Your task to perform on an android device: make emails show in primary in the gmail app Image 0: 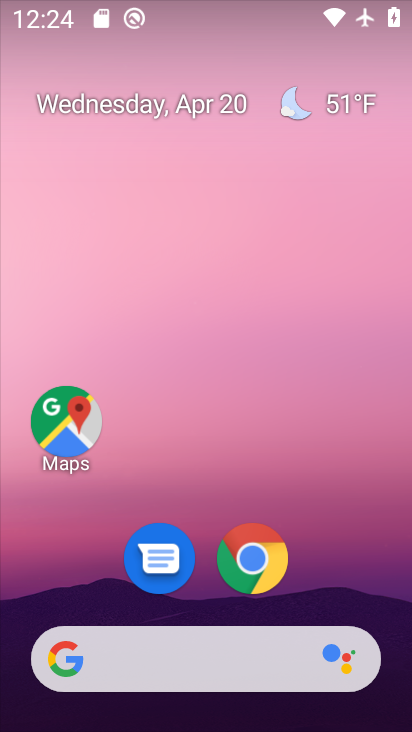
Step 0: drag from (379, 611) to (280, 224)
Your task to perform on an android device: make emails show in primary in the gmail app Image 1: 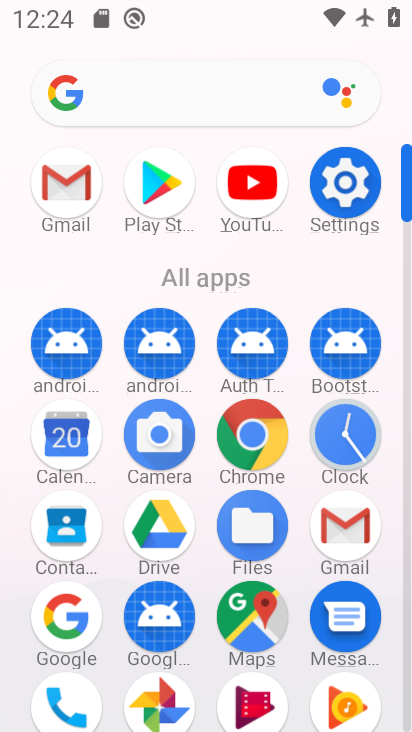
Step 1: click (408, 688)
Your task to perform on an android device: make emails show in primary in the gmail app Image 2: 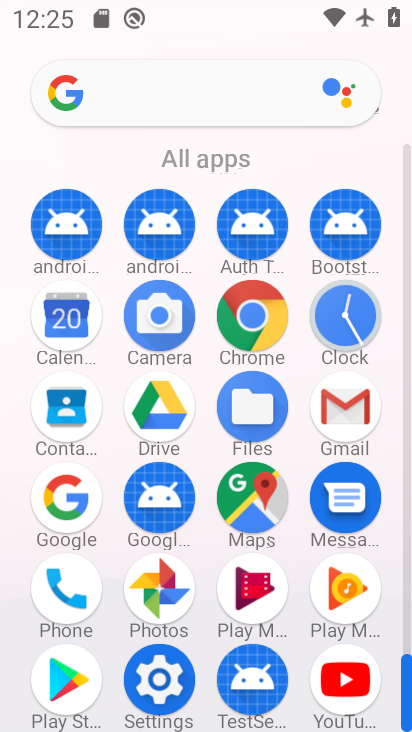
Step 2: click (344, 404)
Your task to perform on an android device: make emails show in primary in the gmail app Image 3: 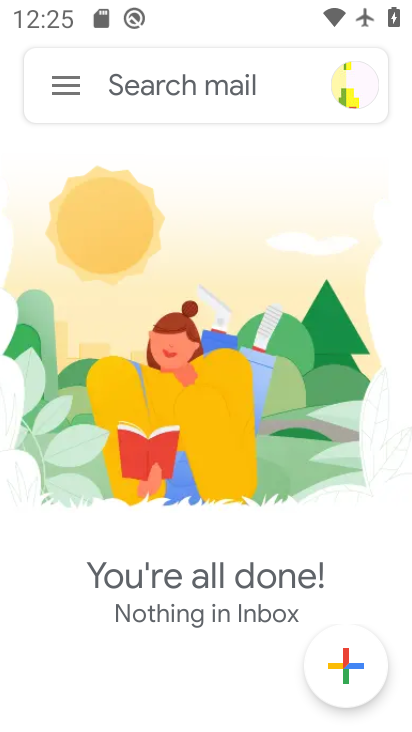
Step 3: click (65, 85)
Your task to perform on an android device: make emails show in primary in the gmail app Image 4: 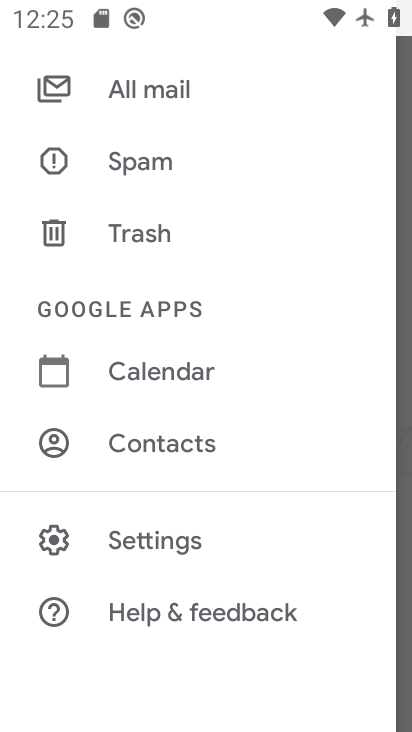
Step 4: click (150, 532)
Your task to perform on an android device: make emails show in primary in the gmail app Image 5: 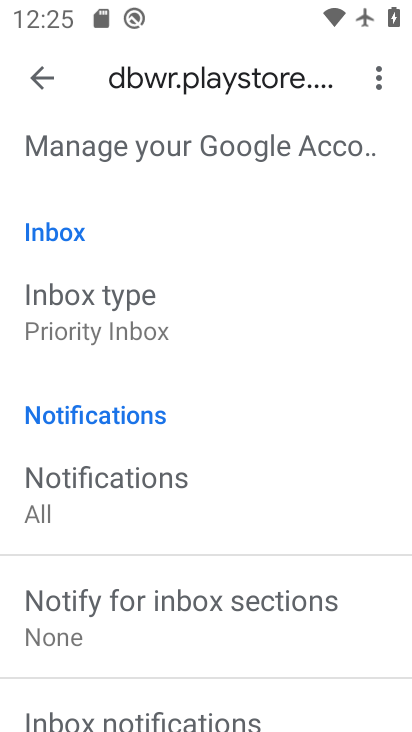
Step 5: click (85, 296)
Your task to perform on an android device: make emails show in primary in the gmail app Image 6: 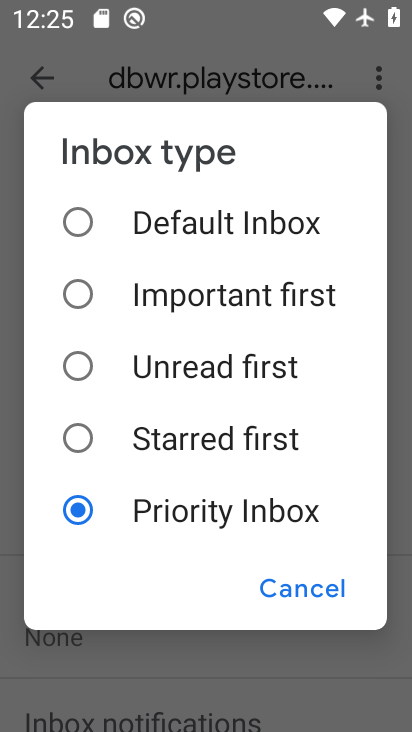
Step 6: click (78, 217)
Your task to perform on an android device: make emails show in primary in the gmail app Image 7: 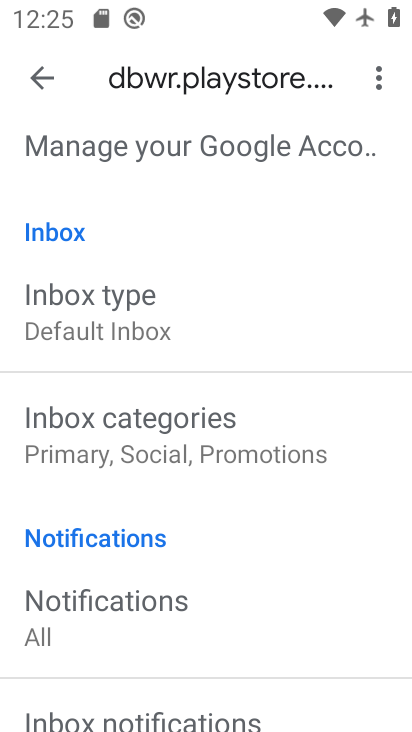
Step 7: click (126, 431)
Your task to perform on an android device: make emails show in primary in the gmail app Image 8: 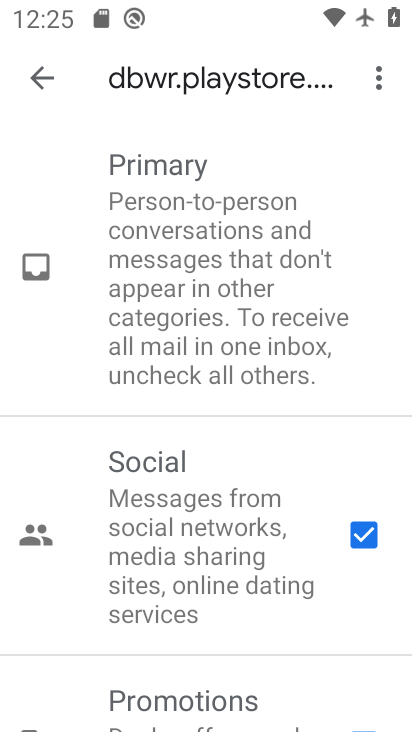
Step 8: click (367, 539)
Your task to perform on an android device: make emails show in primary in the gmail app Image 9: 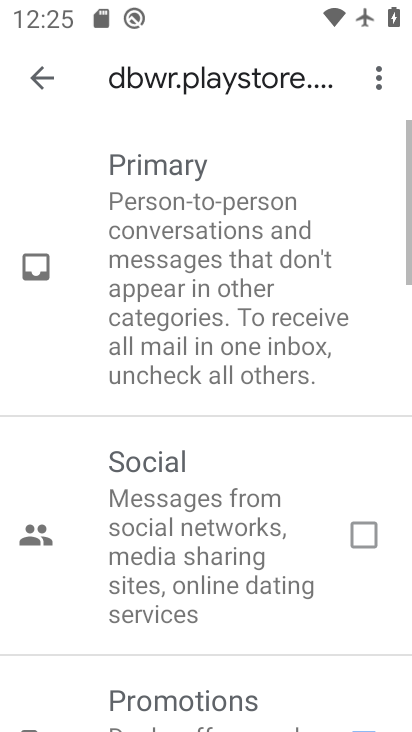
Step 9: drag from (307, 603) to (290, 276)
Your task to perform on an android device: make emails show in primary in the gmail app Image 10: 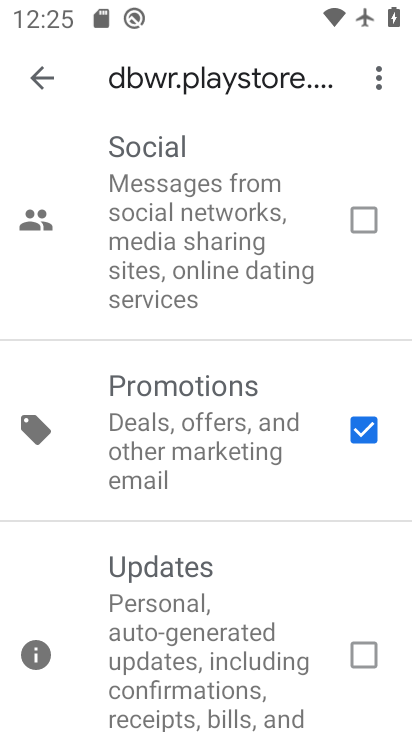
Step 10: click (358, 433)
Your task to perform on an android device: make emails show in primary in the gmail app Image 11: 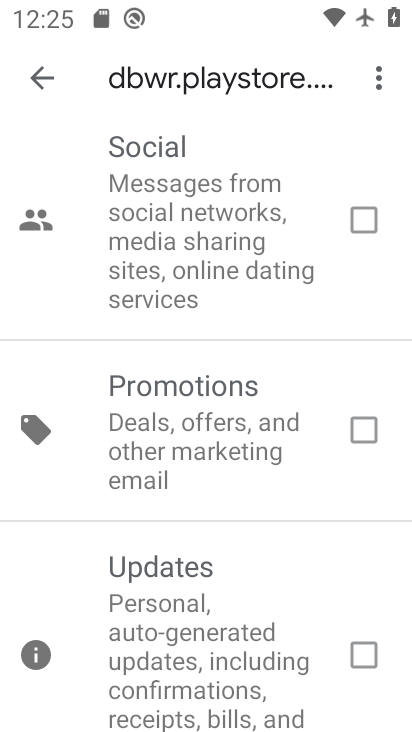
Step 11: task complete